Your task to perform on an android device: Go to Amazon Image 0: 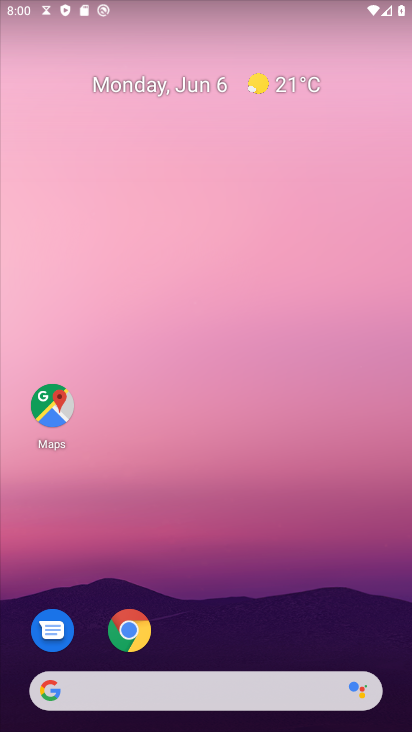
Step 0: click (130, 632)
Your task to perform on an android device: Go to Amazon Image 1: 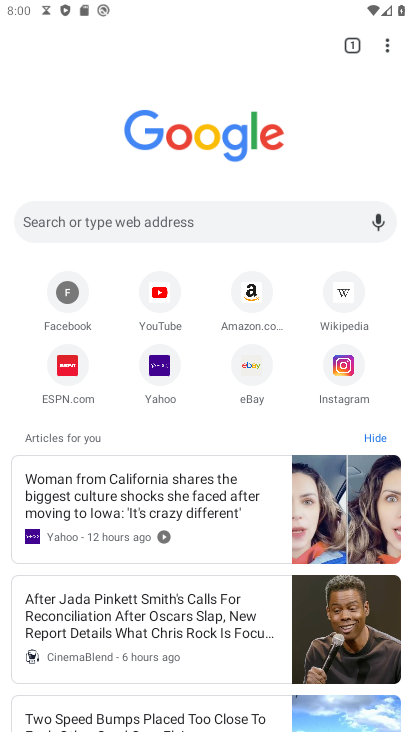
Step 1: click (252, 292)
Your task to perform on an android device: Go to Amazon Image 2: 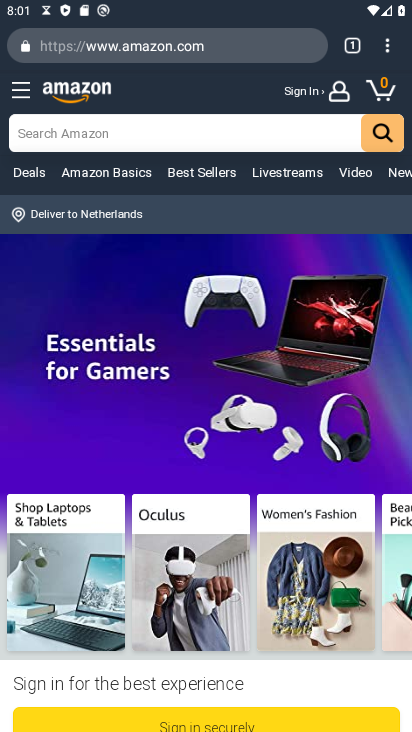
Step 2: task complete